Your task to perform on an android device: Go to Amazon Image 0: 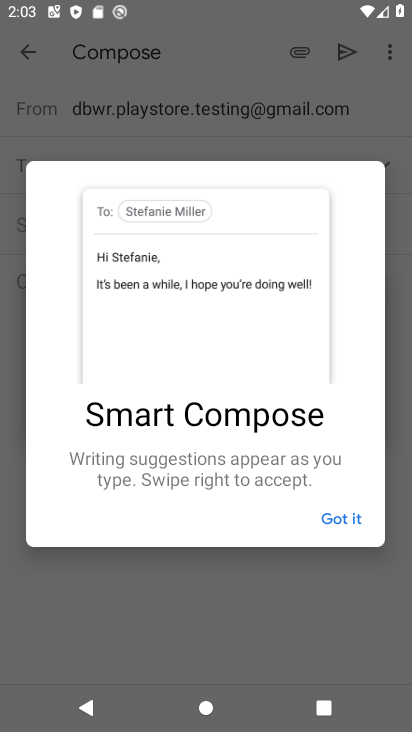
Step 0: press home button
Your task to perform on an android device: Go to Amazon Image 1: 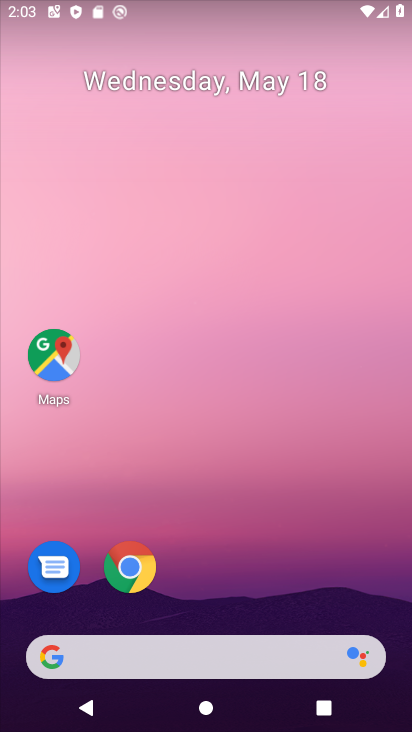
Step 1: click (136, 564)
Your task to perform on an android device: Go to Amazon Image 2: 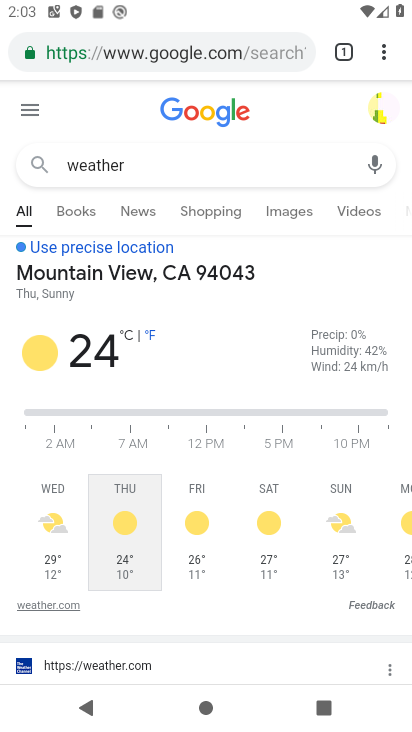
Step 2: click (245, 46)
Your task to perform on an android device: Go to Amazon Image 3: 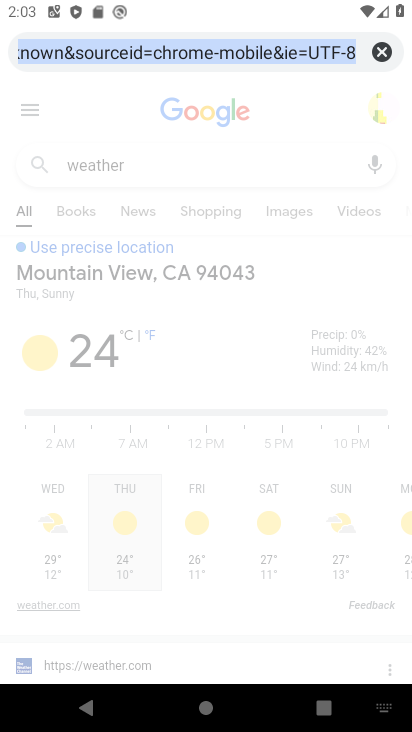
Step 3: click (383, 54)
Your task to perform on an android device: Go to Amazon Image 4: 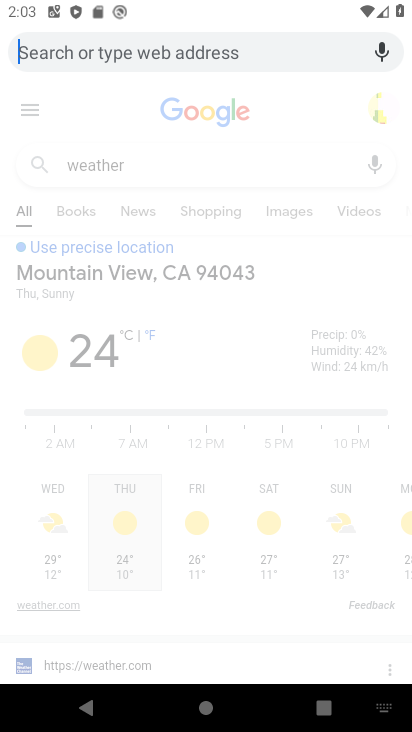
Step 4: type "amazon"
Your task to perform on an android device: Go to Amazon Image 5: 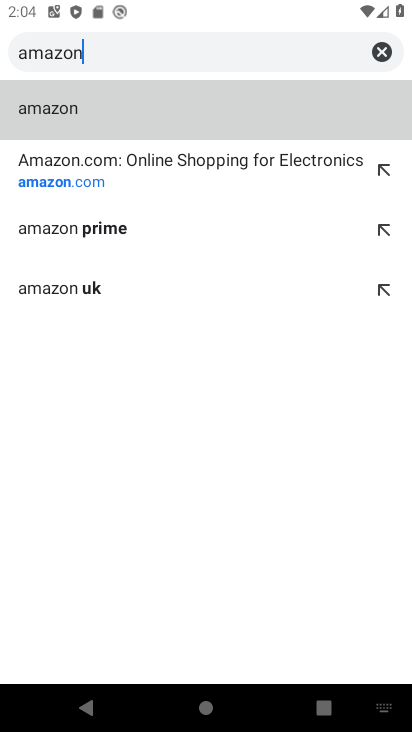
Step 5: click (60, 180)
Your task to perform on an android device: Go to Amazon Image 6: 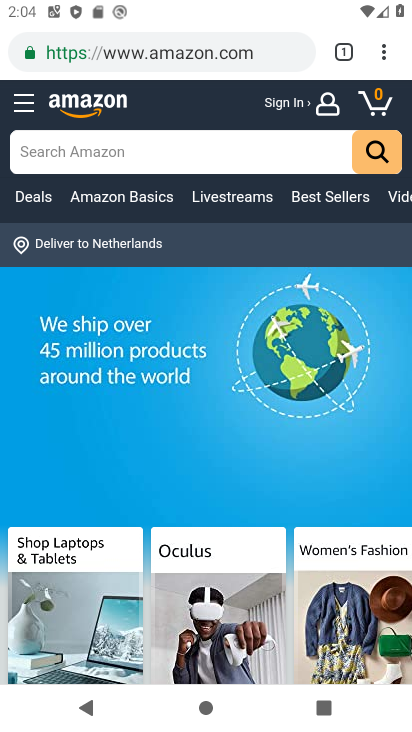
Step 6: task complete